Your task to perform on an android device: toggle wifi Image 0: 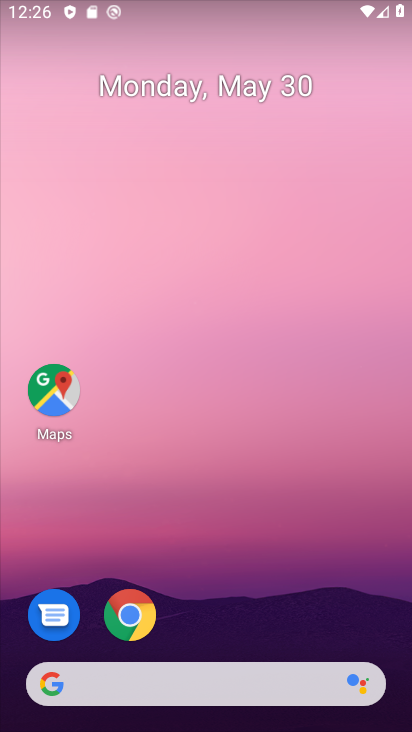
Step 0: drag from (76, 8) to (91, 494)
Your task to perform on an android device: toggle wifi Image 1: 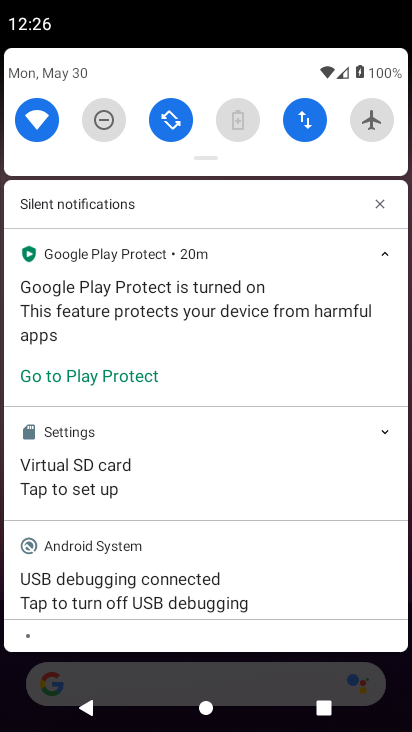
Step 1: click (38, 113)
Your task to perform on an android device: toggle wifi Image 2: 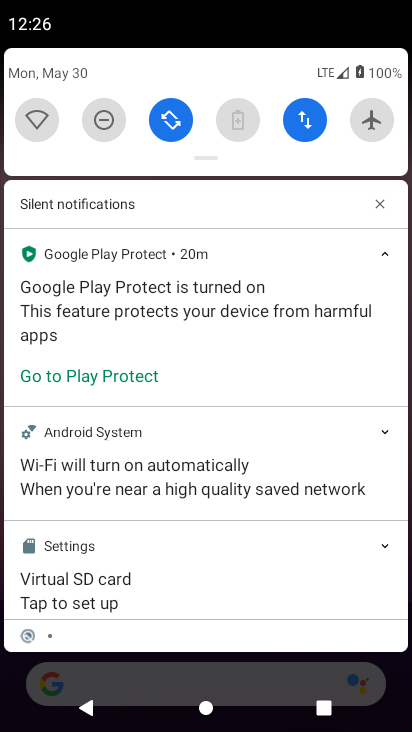
Step 2: task complete